Your task to perform on an android device: turn on data saver in the chrome app Image 0: 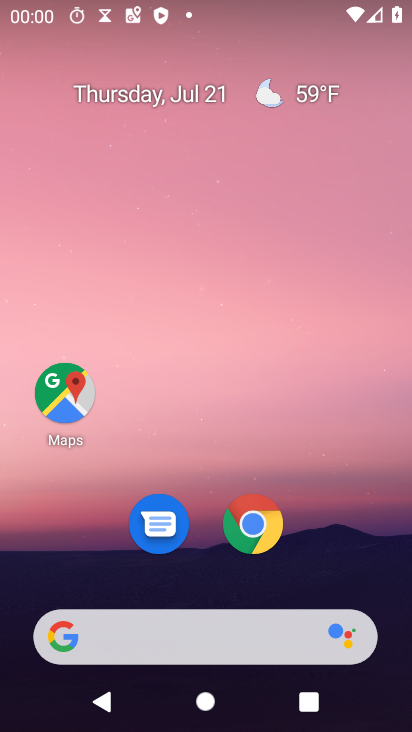
Step 0: click (249, 537)
Your task to perform on an android device: turn on data saver in the chrome app Image 1: 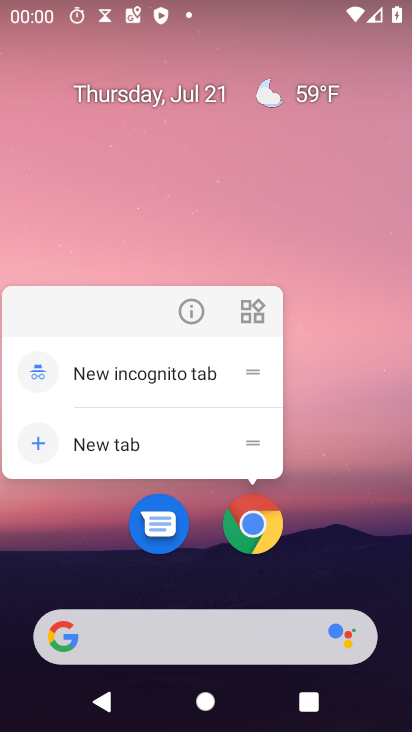
Step 1: click (253, 524)
Your task to perform on an android device: turn on data saver in the chrome app Image 2: 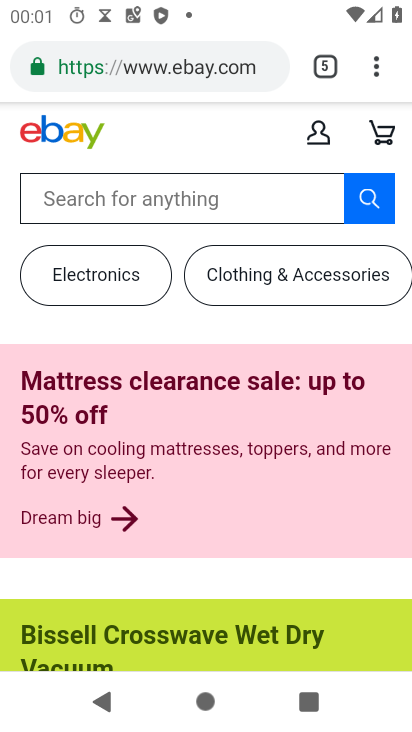
Step 2: drag from (375, 66) to (235, 530)
Your task to perform on an android device: turn on data saver in the chrome app Image 3: 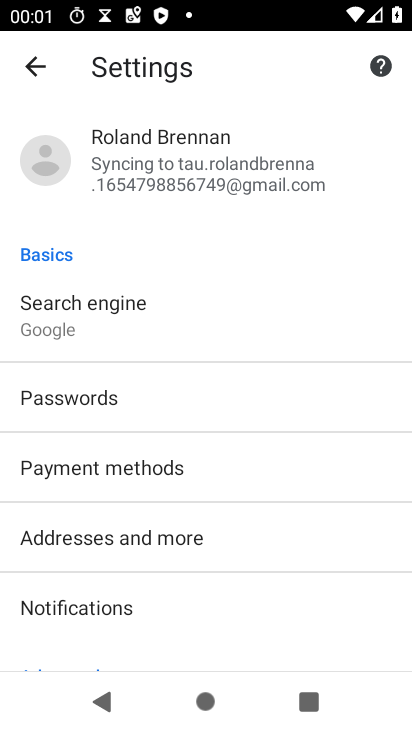
Step 3: drag from (214, 622) to (298, 206)
Your task to perform on an android device: turn on data saver in the chrome app Image 4: 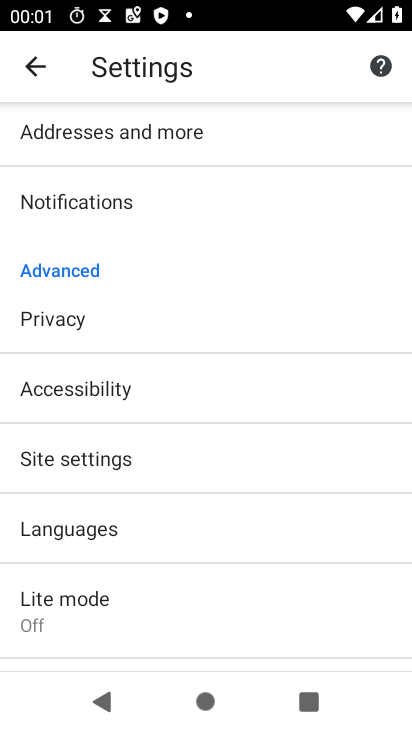
Step 4: click (110, 593)
Your task to perform on an android device: turn on data saver in the chrome app Image 5: 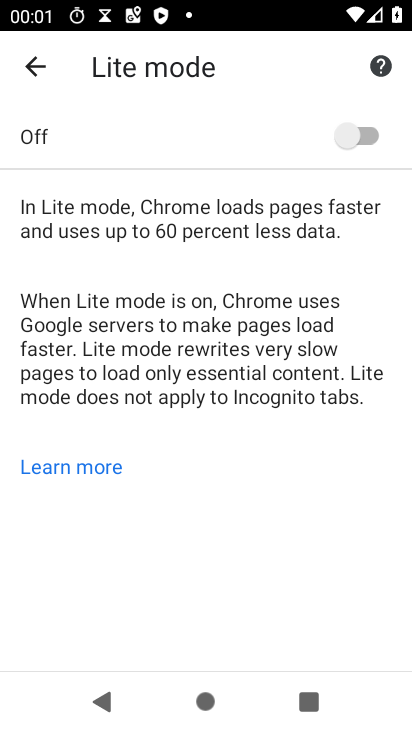
Step 5: click (371, 134)
Your task to perform on an android device: turn on data saver in the chrome app Image 6: 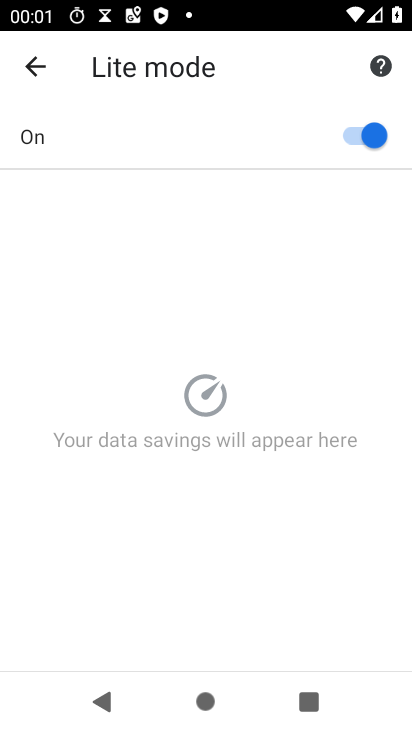
Step 6: task complete